Your task to perform on an android device: open device folders in google photos Image 0: 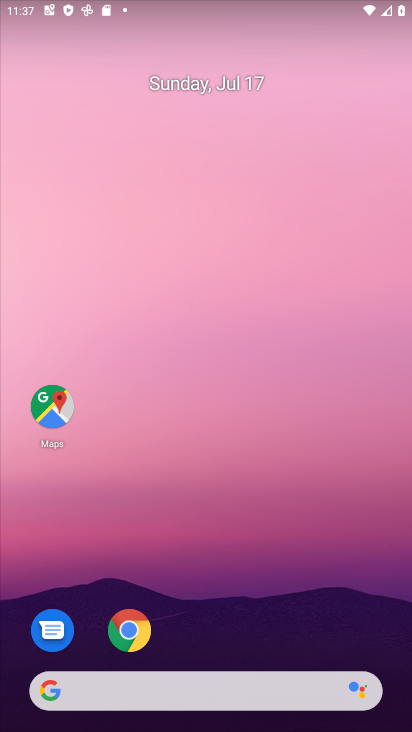
Step 0: drag from (337, 655) to (258, 48)
Your task to perform on an android device: open device folders in google photos Image 1: 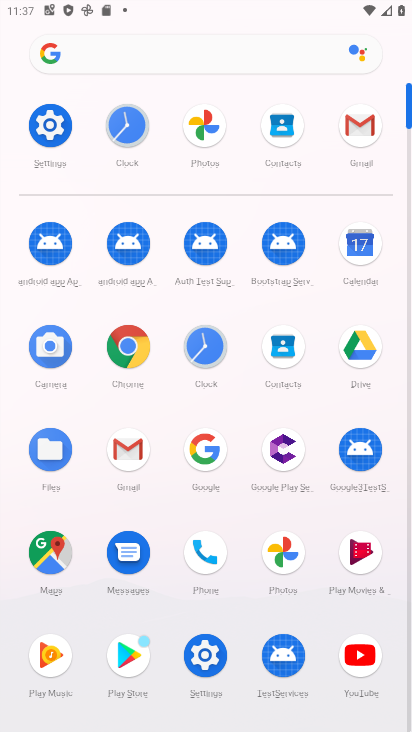
Step 1: click (209, 136)
Your task to perform on an android device: open device folders in google photos Image 2: 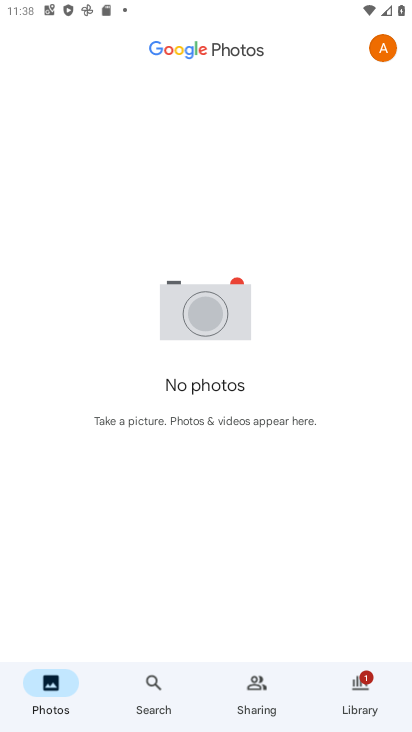
Step 2: click (373, 56)
Your task to perform on an android device: open device folders in google photos Image 3: 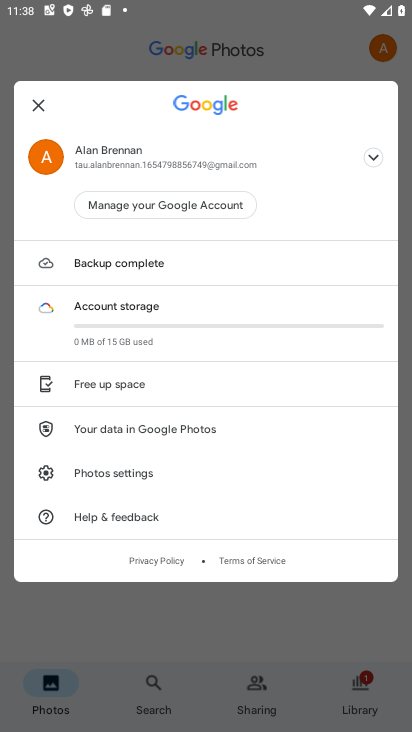
Step 3: task complete